Your task to perform on an android device: When is my next appointment? Image 0: 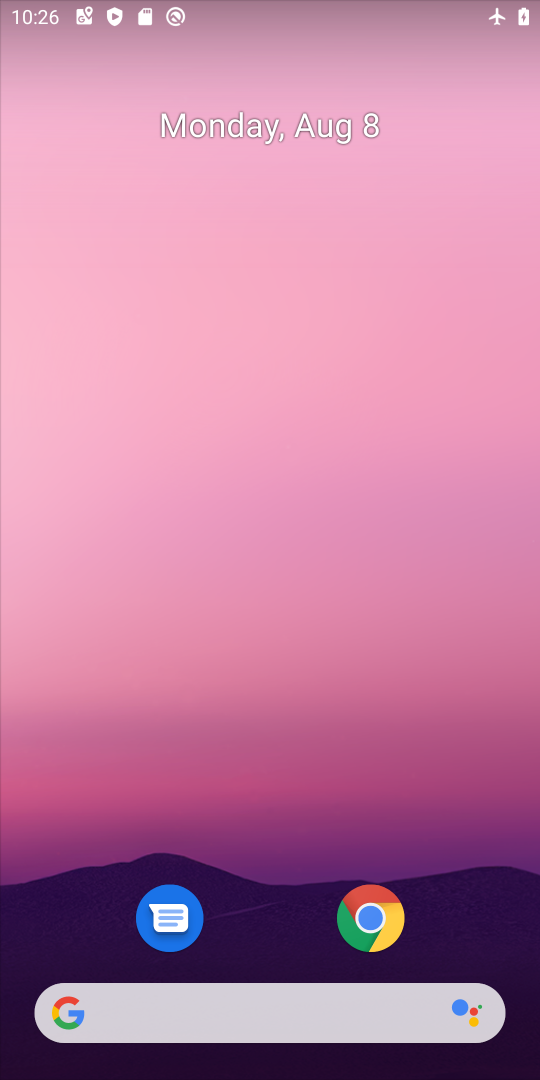
Step 0: drag from (233, 961) to (147, 136)
Your task to perform on an android device: When is my next appointment? Image 1: 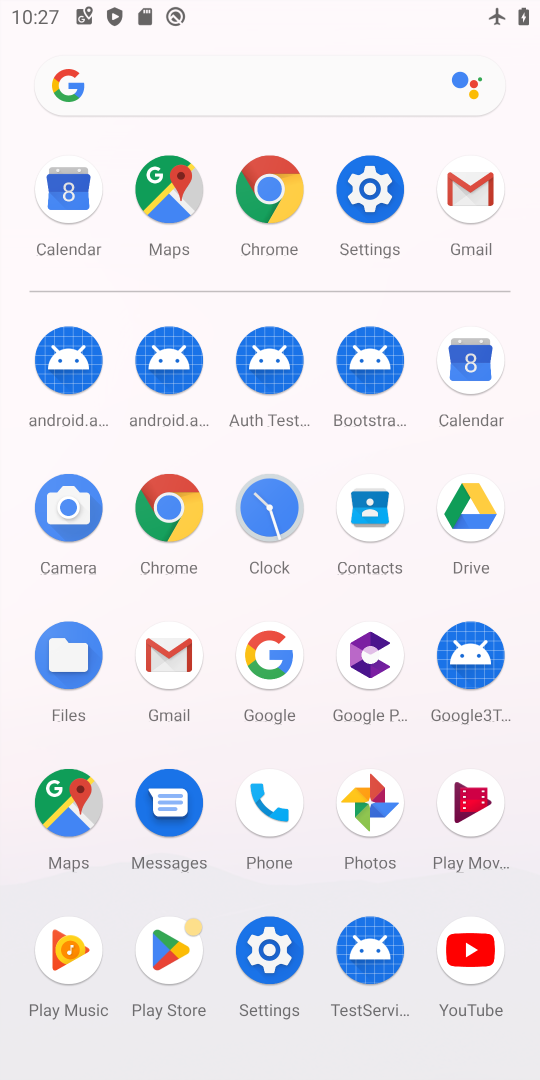
Step 1: click (470, 374)
Your task to perform on an android device: When is my next appointment? Image 2: 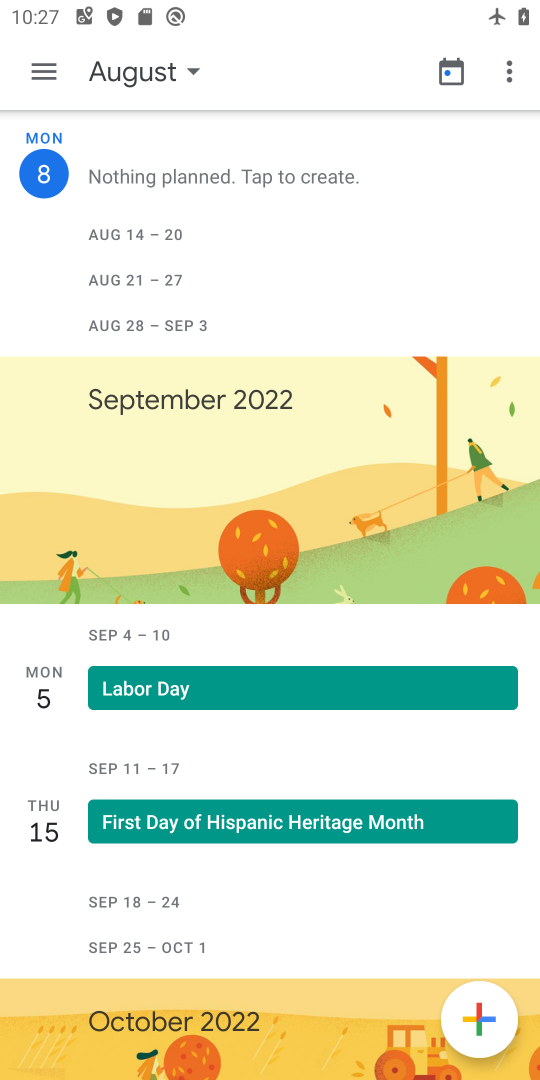
Step 2: click (455, 80)
Your task to perform on an android device: When is my next appointment? Image 3: 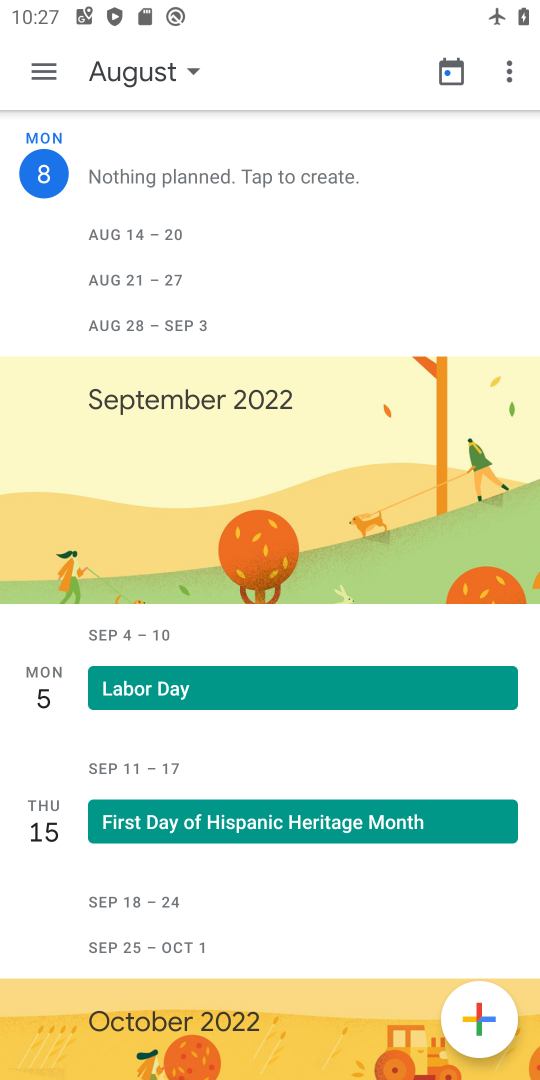
Step 3: click (450, 73)
Your task to perform on an android device: When is my next appointment? Image 4: 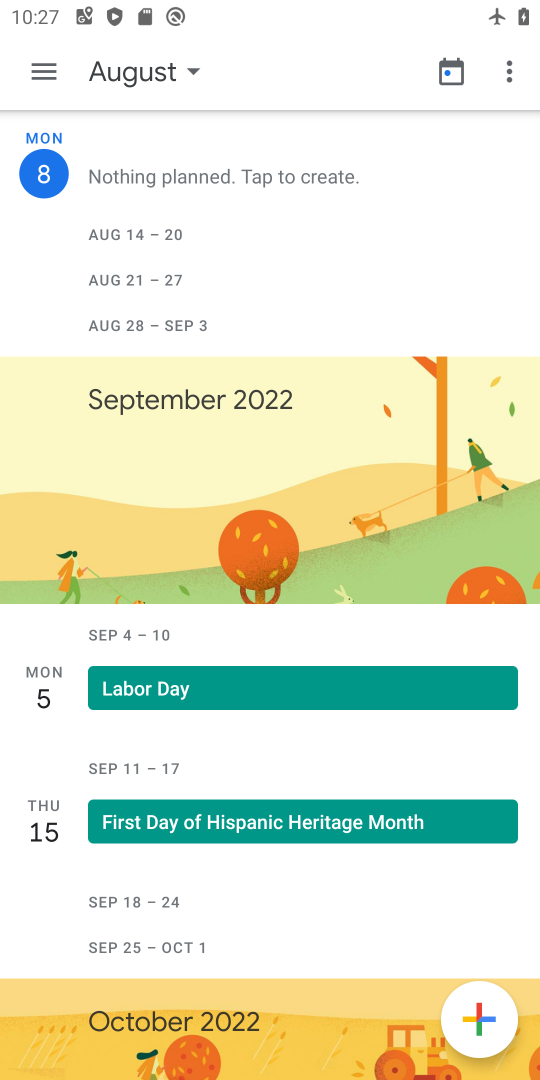
Step 4: click (9, 58)
Your task to perform on an android device: When is my next appointment? Image 5: 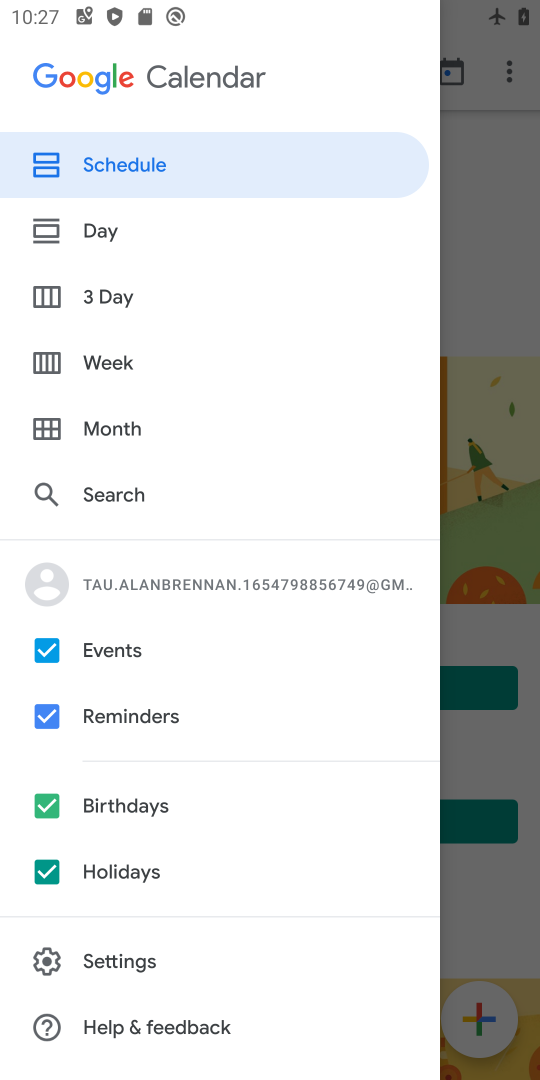
Step 5: click (116, 350)
Your task to perform on an android device: When is my next appointment? Image 6: 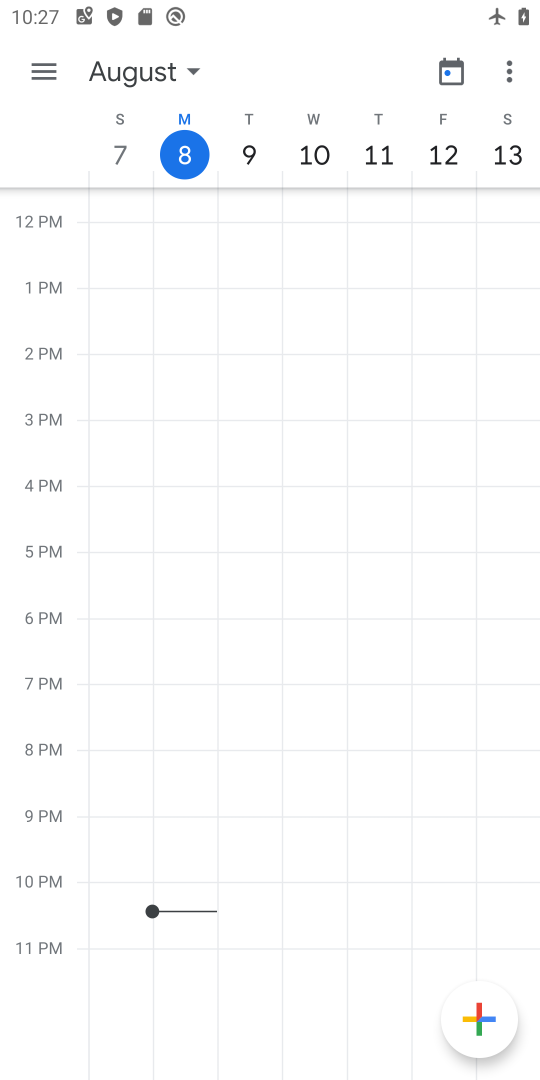
Step 6: task complete